Your task to perform on an android device: change keyboard looks Image 0: 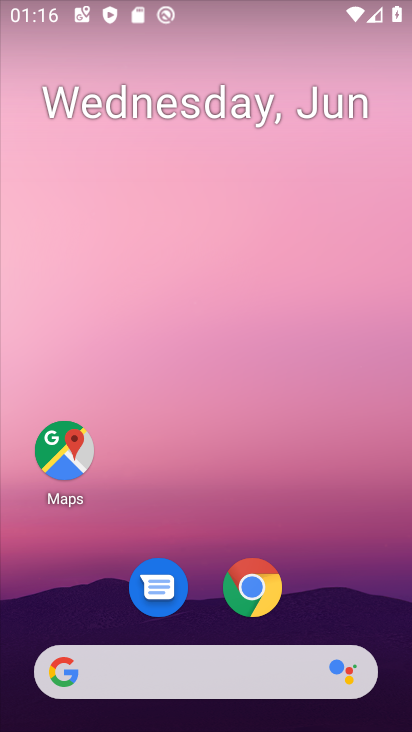
Step 0: drag from (347, 585) to (337, 113)
Your task to perform on an android device: change keyboard looks Image 1: 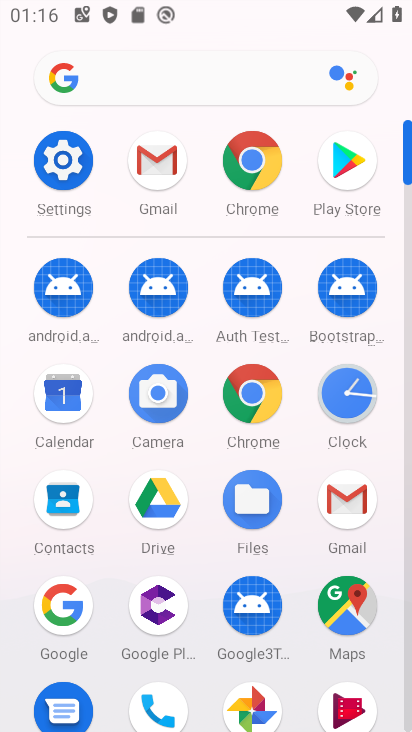
Step 1: click (54, 162)
Your task to perform on an android device: change keyboard looks Image 2: 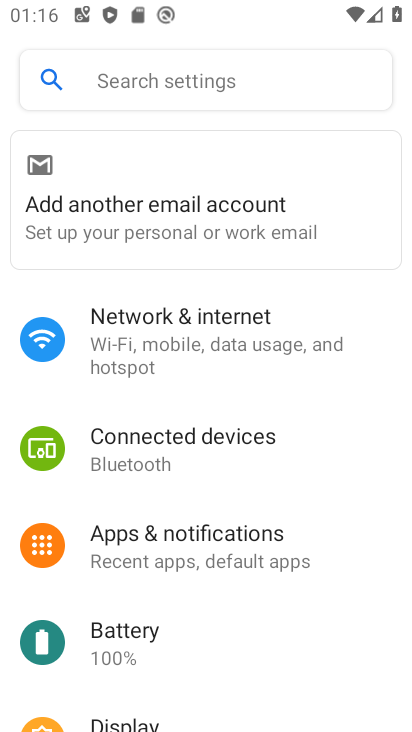
Step 2: drag from (268, 591) to (342, 126)
Your task to perform on an android device: change keyboard looks Image 3: 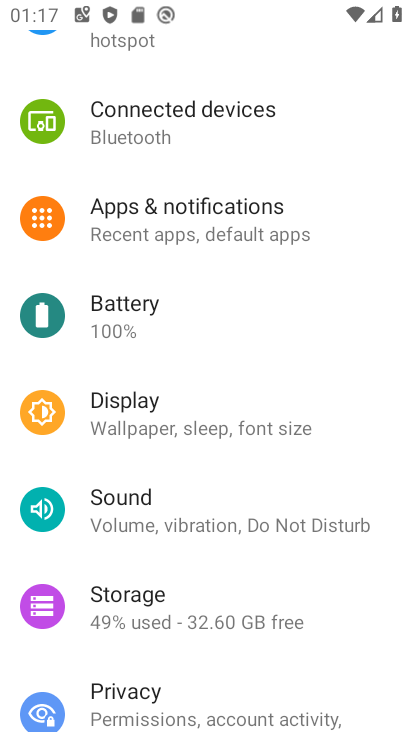
Step 3: drag from (296, 695) to (316, 255)
Your task to perform on an android device: change keyboard looks Image 4: 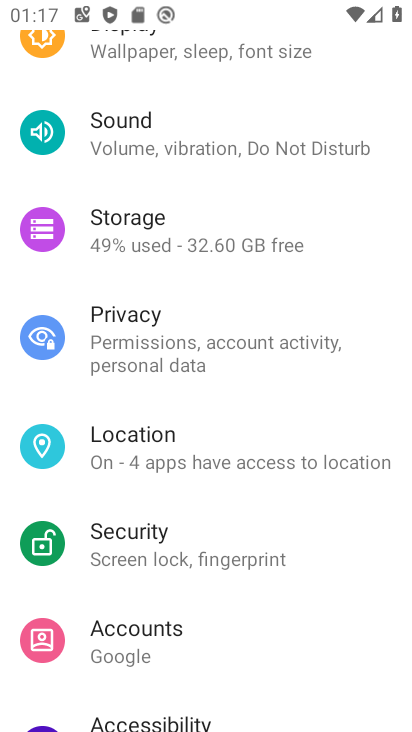
Step 4: drag from (214, 613) to (287, 159)
Your task to perform on an android device: change keyboard looks Image 5: 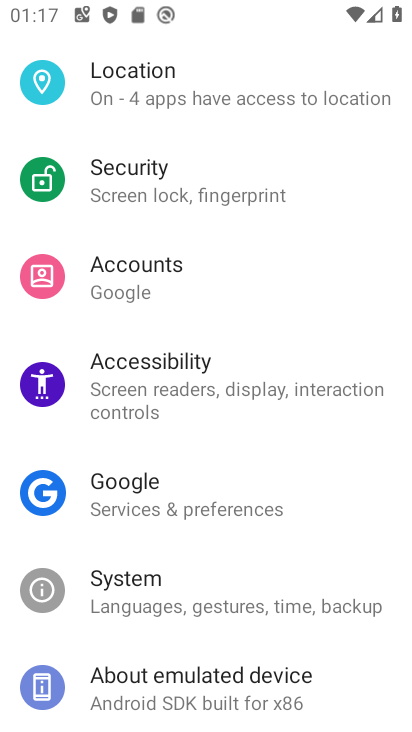
Step 5: click (204, 600)
Your task to perform on an android device: change keyboard looks Image 6: 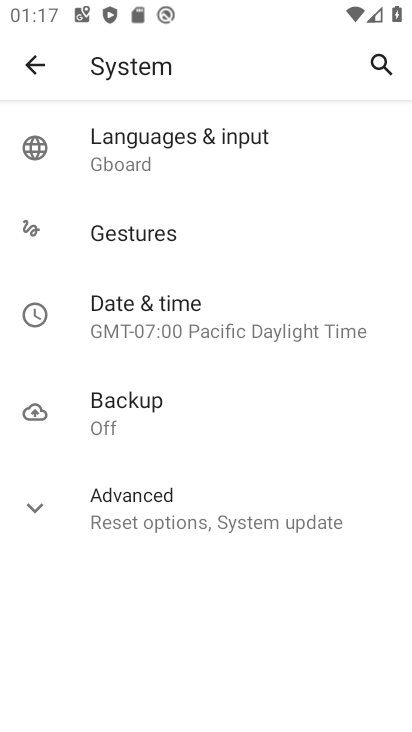
Step 6: click (158, 138)
Your task to perform on an android device: change keyboard looks Image 7: 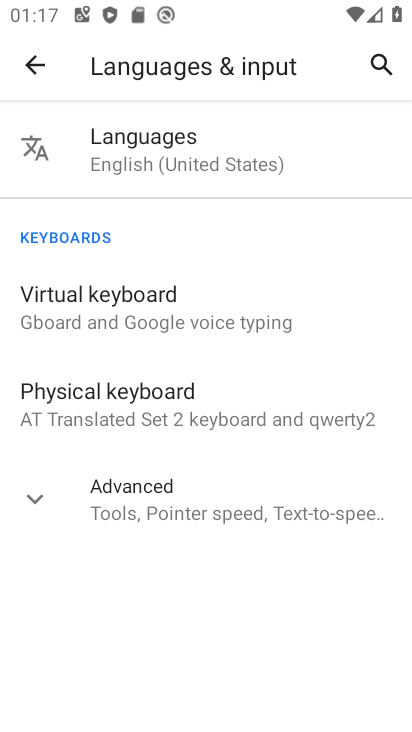
Step 7: click (215, 320)
Your task to perform on an android device: change keyboard looks Image 8: 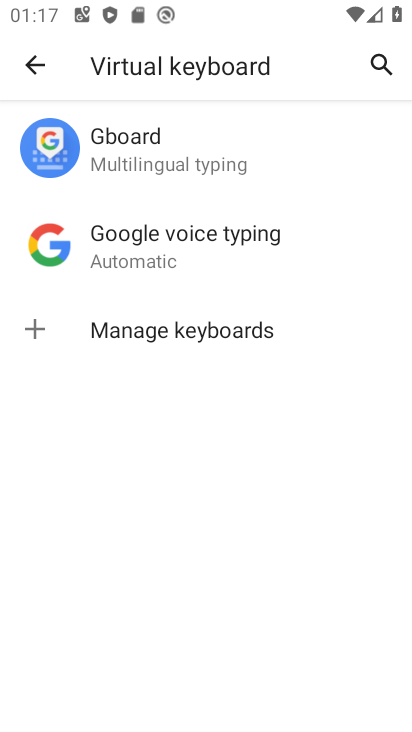
Step 8: click (181, 159)
Your task to perform on an android device: change keyboard looks Image 9: 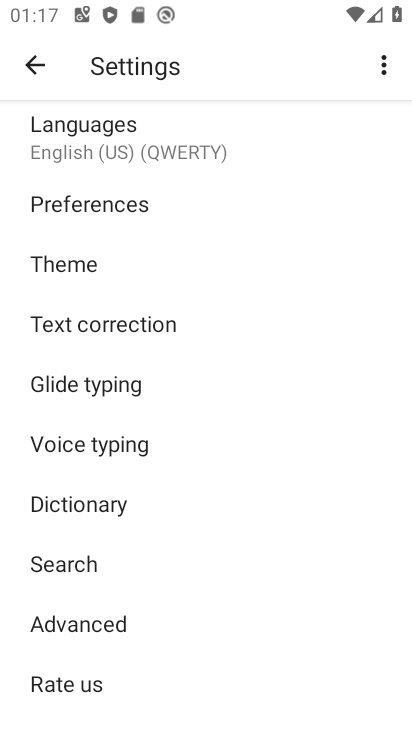
Step 9: click (93, 267)
Your task to perform on an android device: change keyboard looks Image 10: 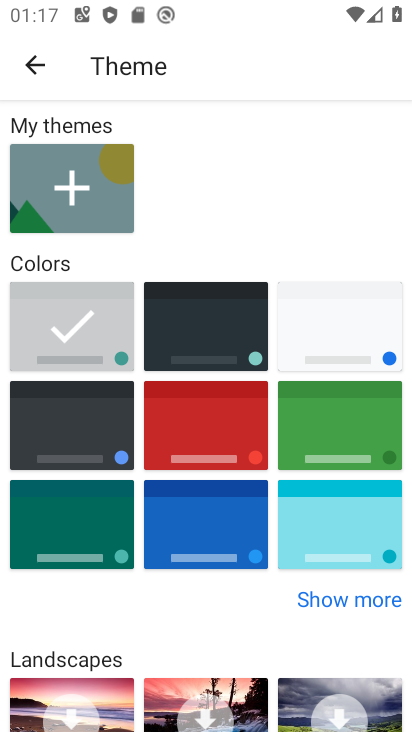
Step 10: click (325, 317)
Your task to perform on an android device: change keyboard looks Image 11: 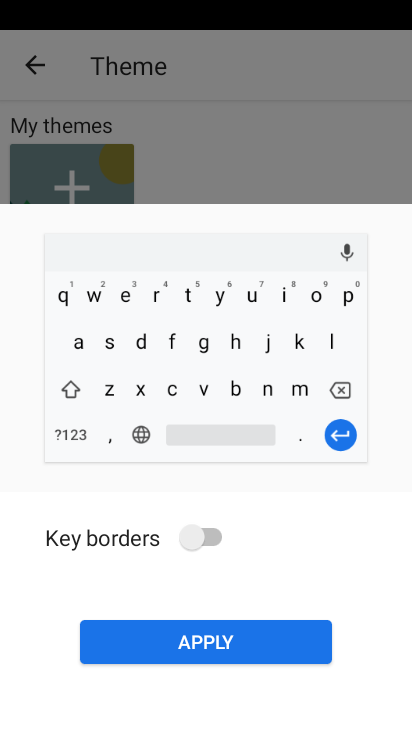
Step 11: click (262, 640)
Your task to perform on an android device: change keyboard looks Image 12: 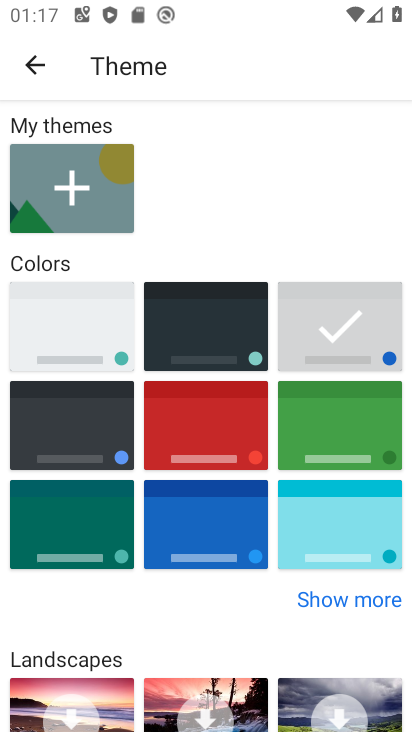
Step 12: task complete